Your task to perform on an android device: turn on location history Image 0: 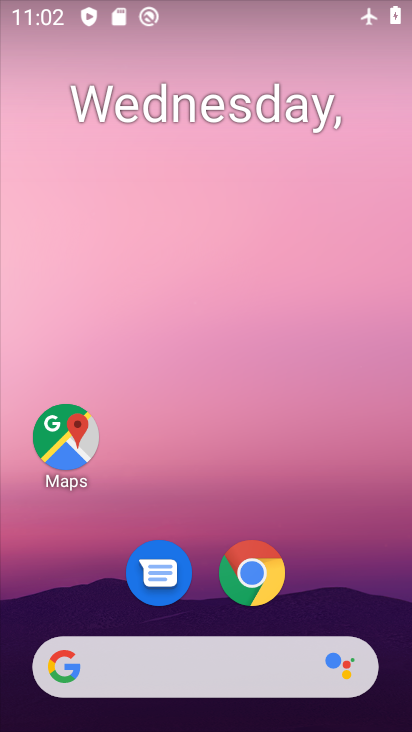
Step 0: drag from (390, 602) to (363, 267)
Your task to perform on an android device: turn on location history Image 1: 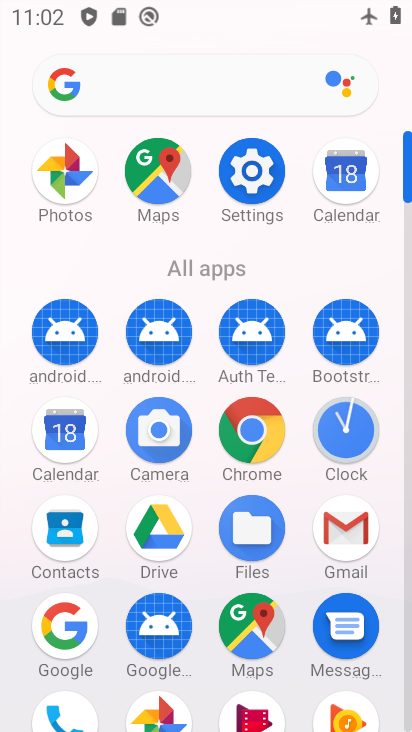
Step 1: click (259, 207)
Your task to perform on an android device: turn on location history Image 2: 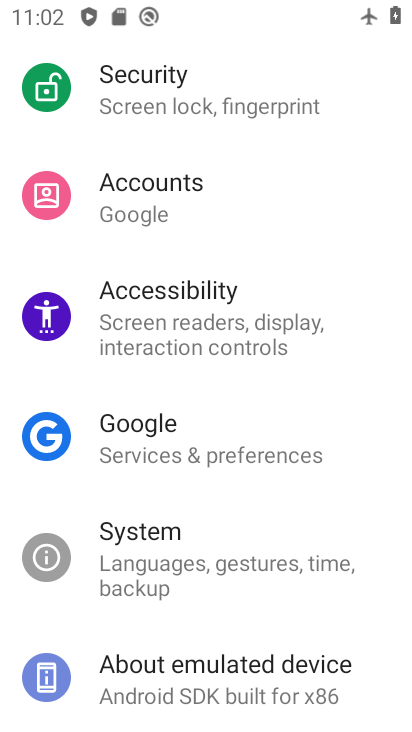
Step 2: drag from (355, 533) to (355, 402)
Your task to perform on an android device: turn on location history Image 3: 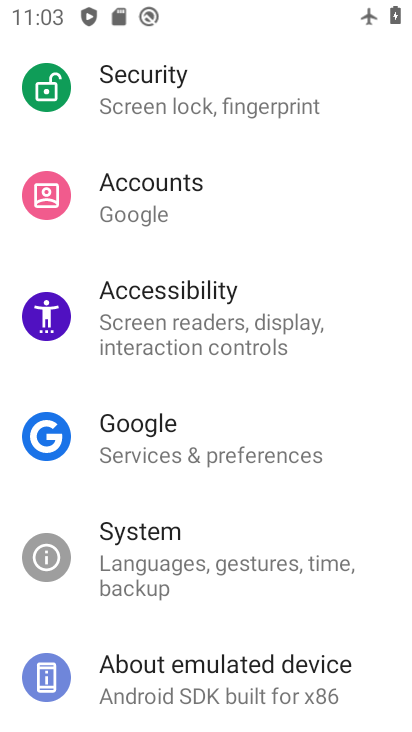
Step 3: drag from (369, 336) to (372, 478)
Your task to perform on an android device: turn on location history Image 4: 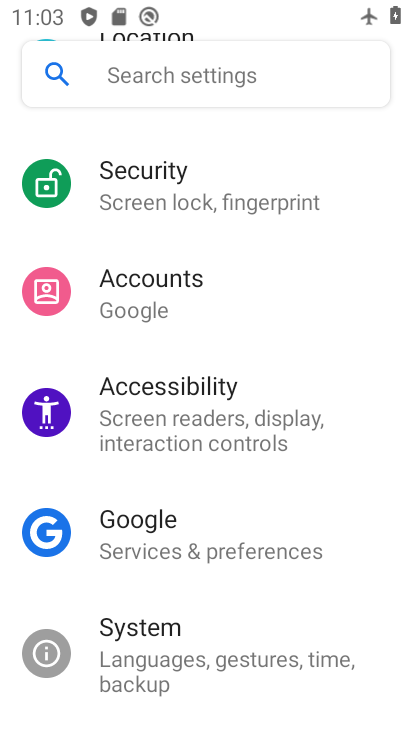
Step 4: drag from (364, 268) to (354, 368)
Your task to perform on an android device: turn on location history Image 5: 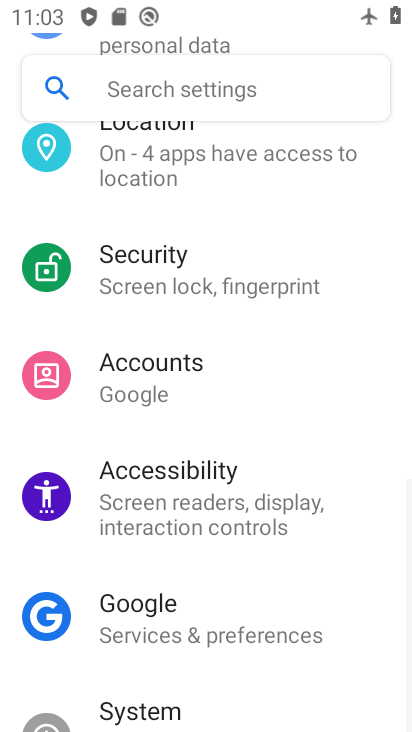
Step 5: drag from (348, 219) to (345, 357)
Your task to perform on an android device: turn on location history Image 6: 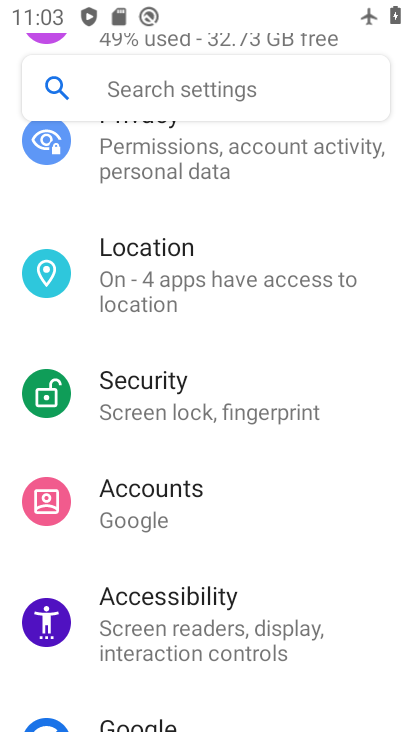
Step 6: drag from (344, 213) to (340, 315)
Your task to perform on an android device: turn on location history Image 7: 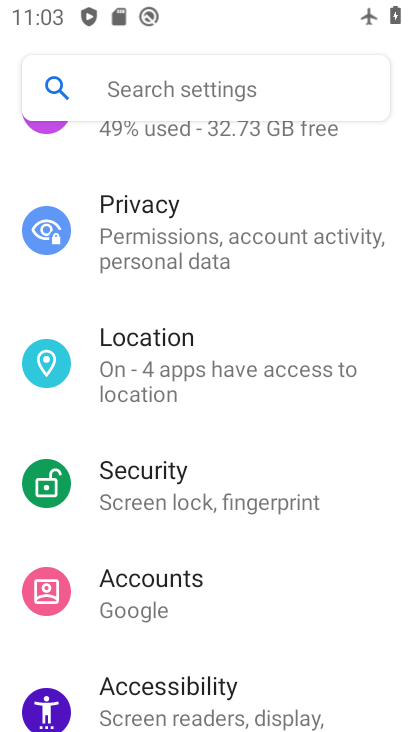
Step 7: click (288, 373)
Your task to perform on an android device: turn on location history Image 8: 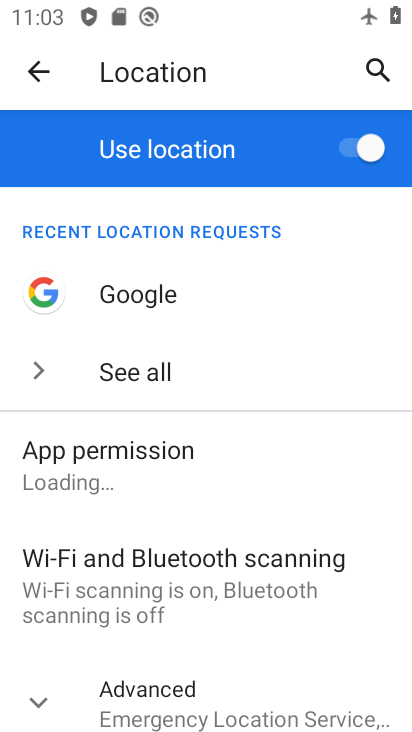
Step 8: drag from (295, 443) to (315, 277)
Your task to perform on an android device: turn on location history Image 9: 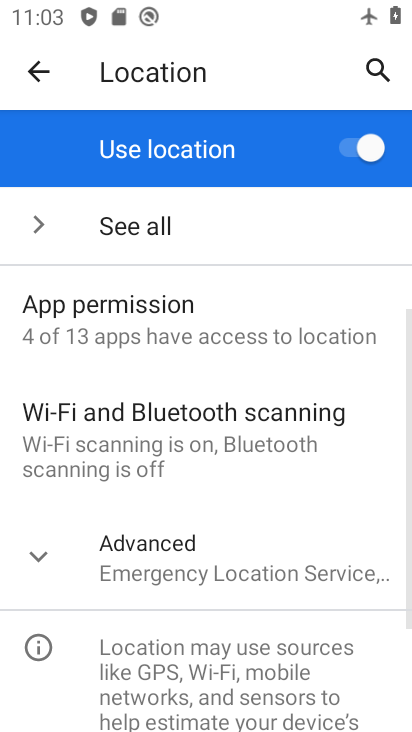
Step 9: drag from (333, 504) to (351, 284)
Your task to perform on an android device: turn on location history Image 10: 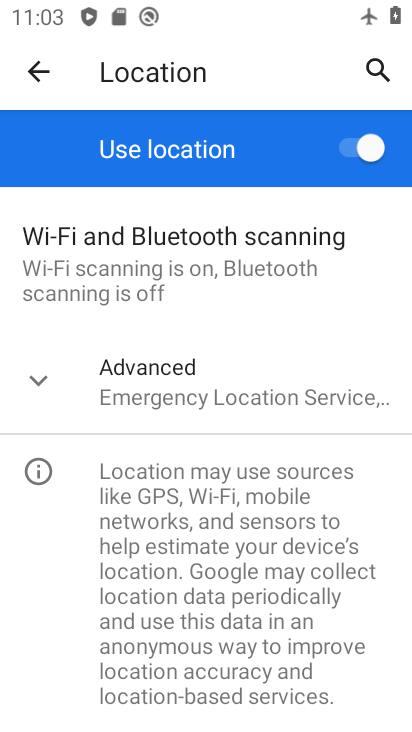
Step 10: click (335, 412)
Your task to perform on an android device: turn on location history Image 11: 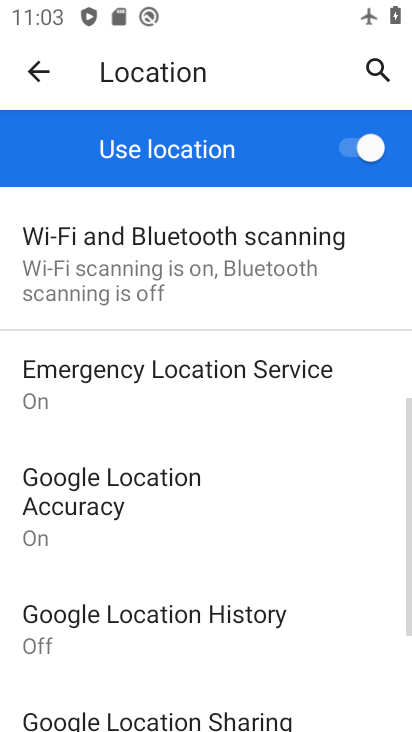
Step 11: drag from (340, 505) to (344, 380)
Your task to perform on an android device: turn on location history Image 12: 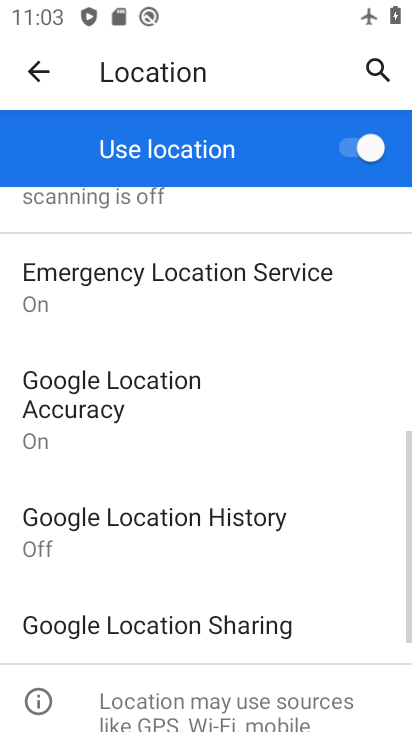
Step 12: drag from (335, 548) to (346, 456)
Your task to perform on an android device: turn on location history Image 13: 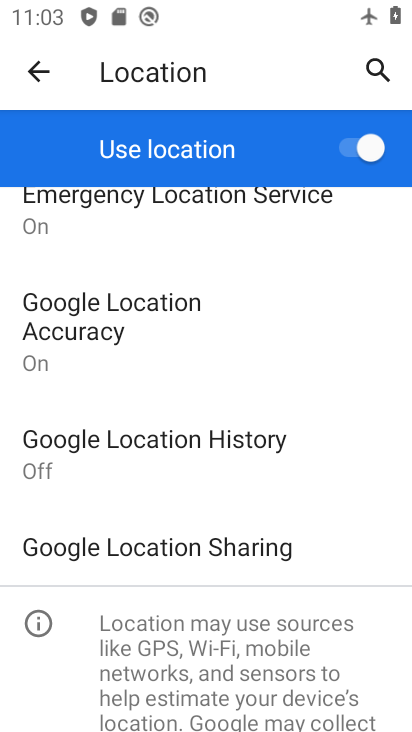
Step 13: click (266, 438)
Your task to perform on an android device: turn on location history Image 14: 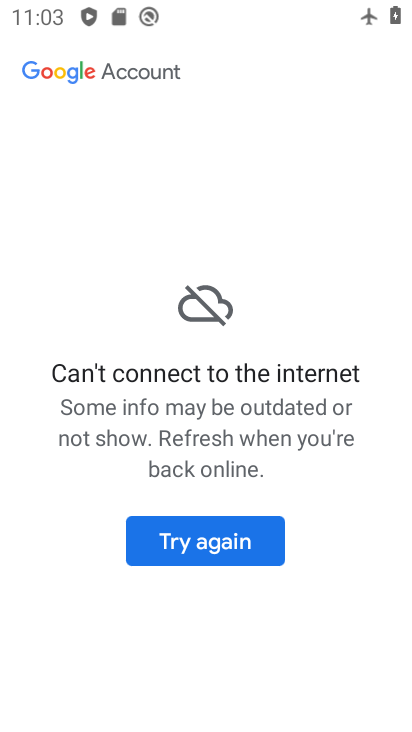
Step 14: click (249, 556)
Your task to perform on an android device: turn on location history Image 15: 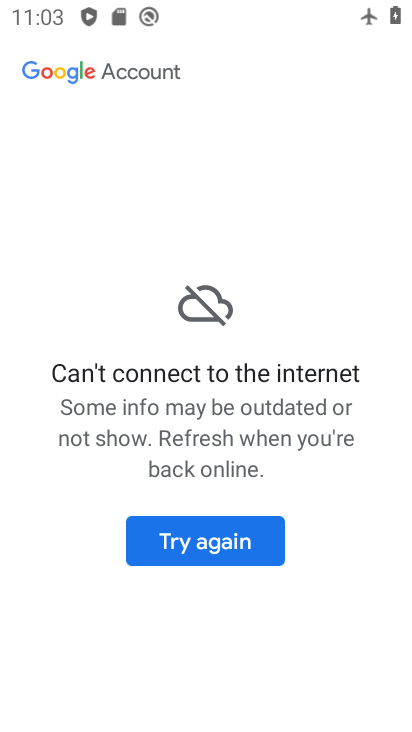
Step 15: task complete